Your task to perform on an android device: change timer sound Image 0: 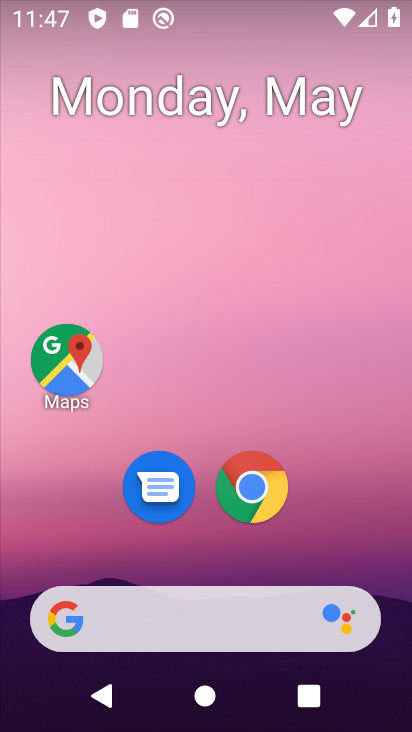
Step 0: drag from (136, 569) to (288, 66)
Your task to perform on an android device: change timer sound Image 1: 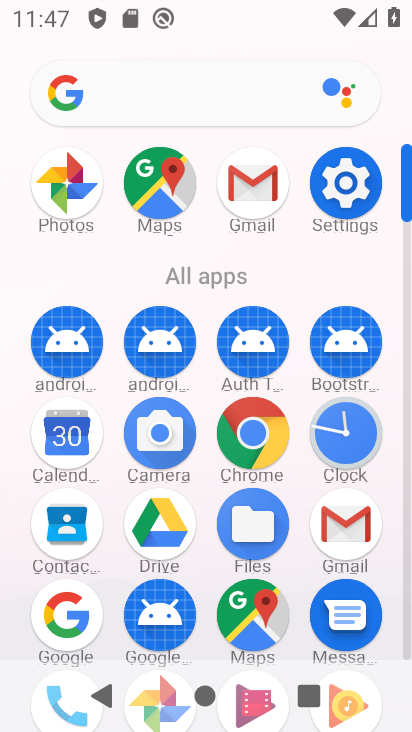
Step 1: click (338, 433)
Your task to perform on an android device: change timer sound Image 2: 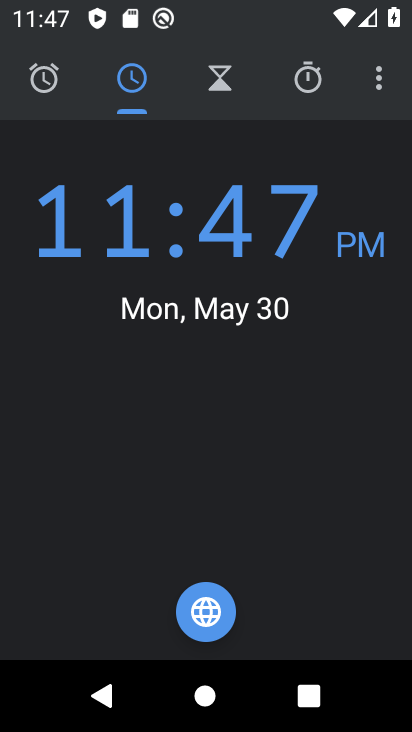
Step 2: click (382, 84)
Your task to perform on an android device: change timer sound Image 3: 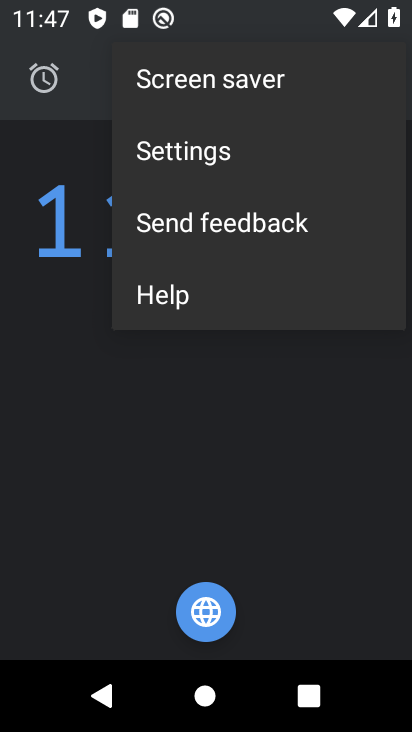
Step 3: click (303, 154)
Your task to perform on an android device: change timer sound Image 4: 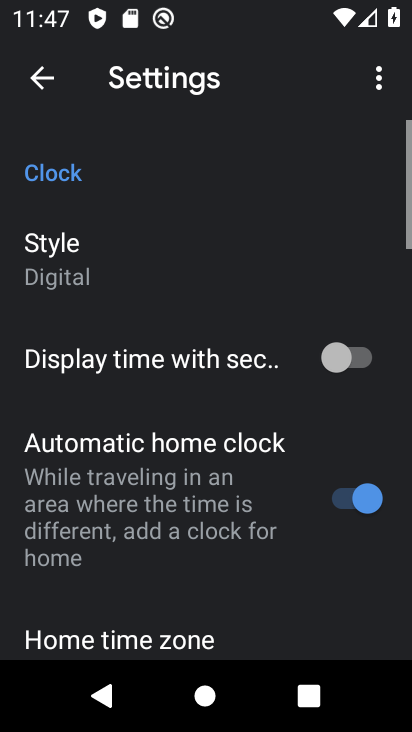
Step 4: drag from (196, 577) to (349, 0)
Your task to perform on an android device: change timer sound Image 5: 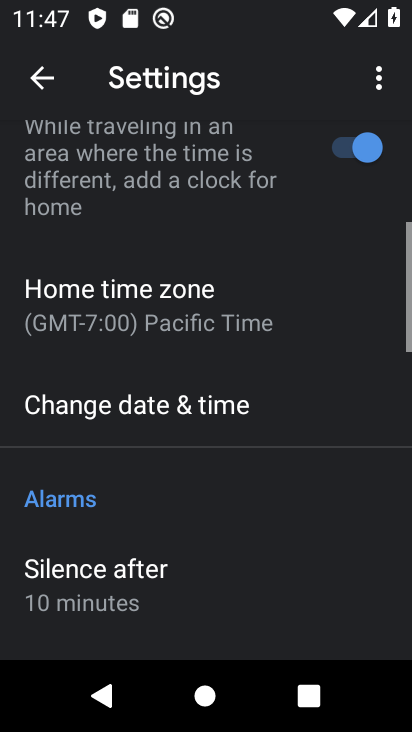
Step 5: drag from (199, 459) to (304, 115)
Your task to perform on an android device: change timer sound Image 6: 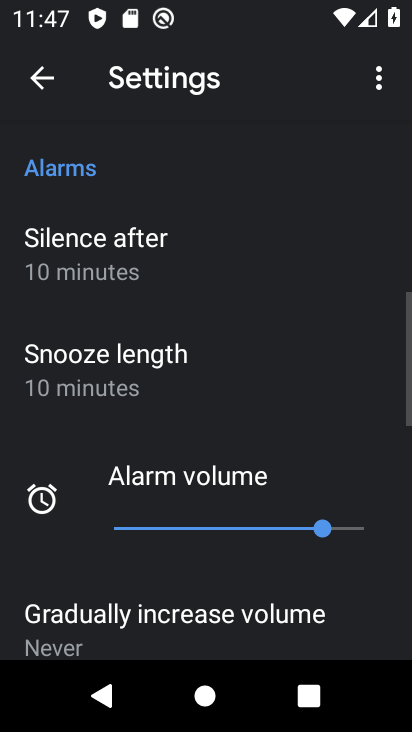
Step 6: drag from (149, 524) to (347, 56)
Your task to perform on an android device: change timer sound Image 7: 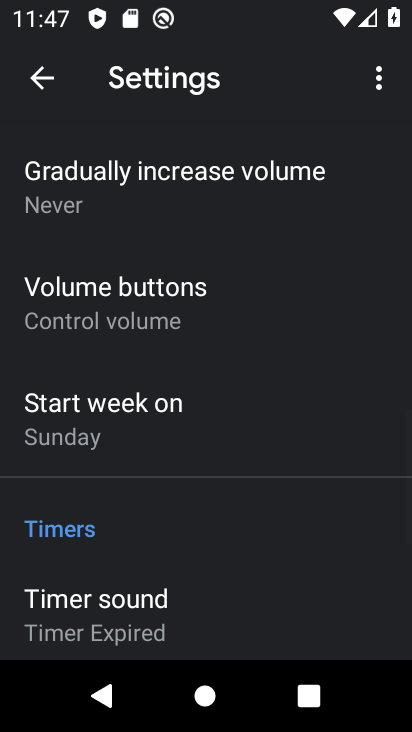
Step 7: click (172, 591)
Your task to perform on an android device: change timer sound Image 8: 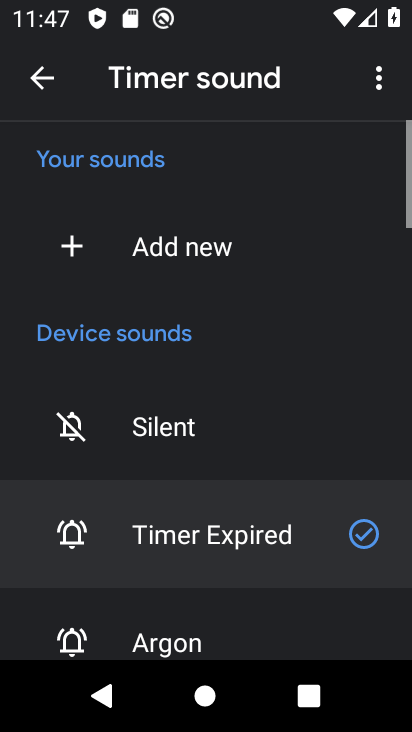
Step 8: drag from (199, 577) to (342, 155)
Your task to perform on an android device: change timer sound Image 9: 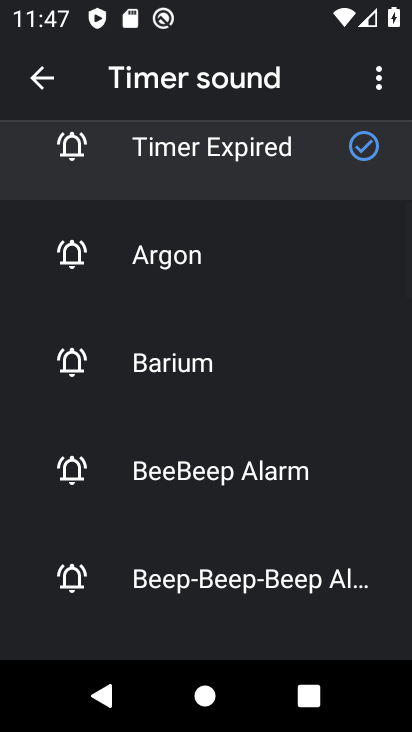
Step 9: click (222, 575)
Your task to perform on an android device: change timer sound Image 10: 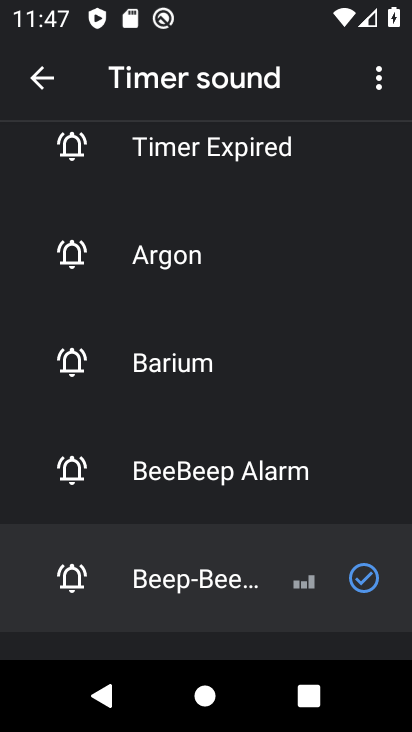
Step 10: task complete